Your task to perform on an android device: turn off picture-in-picture Image 0: 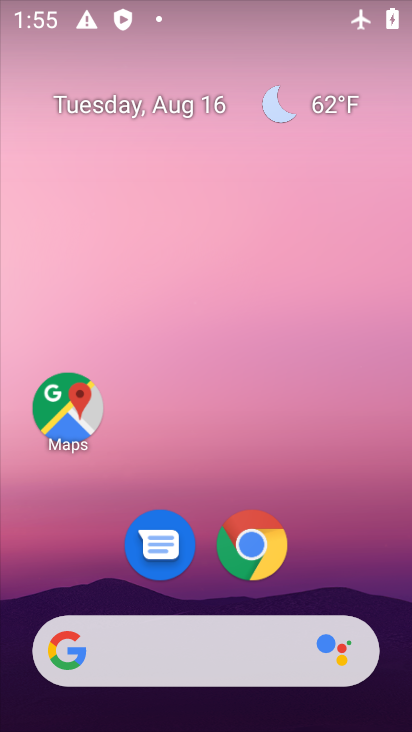
Step 0: click (242, 545)
Your task to perform on an android device: turn off picture-in-picture Image 1: 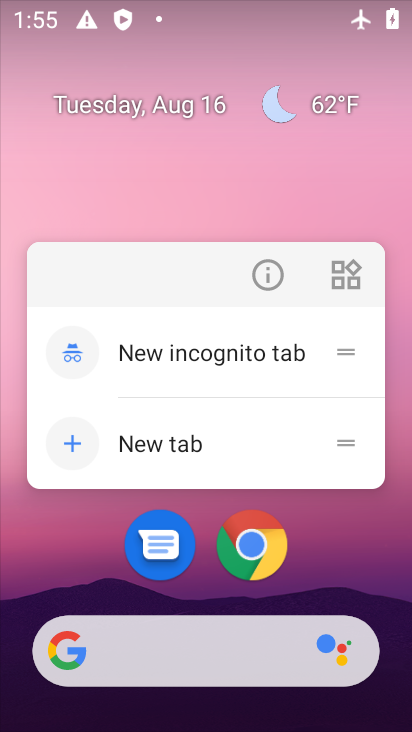
Step 1: click (260, 274)
Your task to perform on an android device: turn off picture-in-picture Image 2: 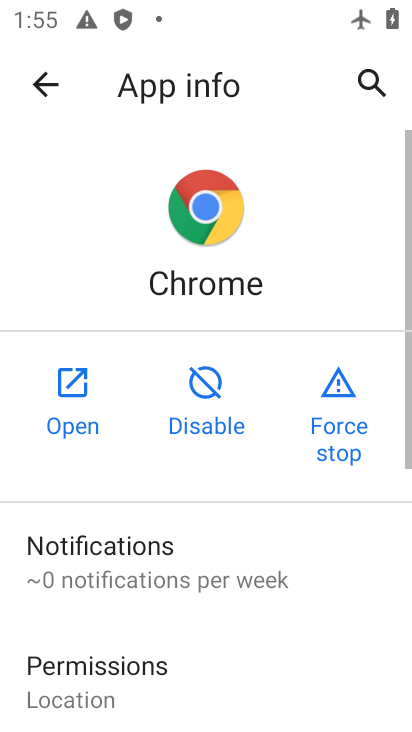
Step 2: drag from (265, 665) to (387, 282)
Your task to perform on an android device: turn off picture-in-picture Image 3: 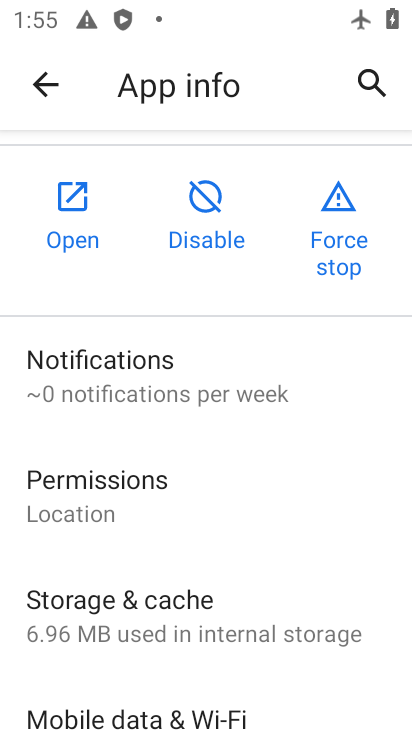
Step 3: drag from (181, 684) to (221, 359)
Your task to perform on an android device: turn off picture-in-picture Image 4: 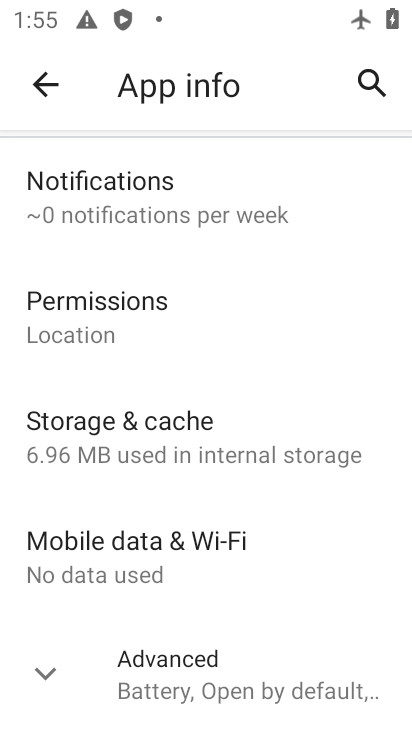
Step 4: click (118, 682)
Your task to perform on an android device: turn off picture-in-picture Image 5: 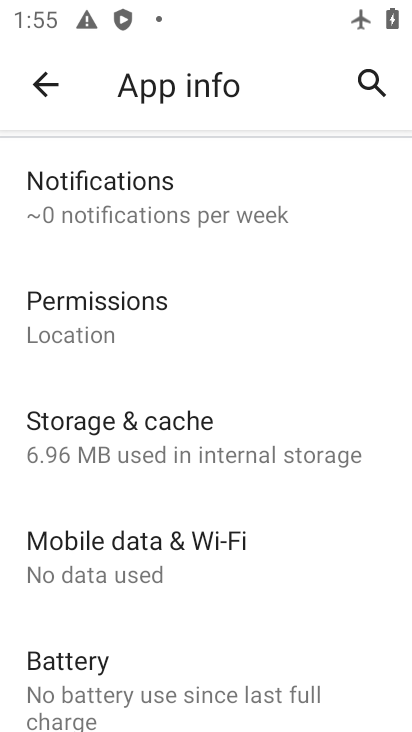
Step 5: click (254, 388)
Your task to perform on an android device: turn off picture-in-picture Image 6: 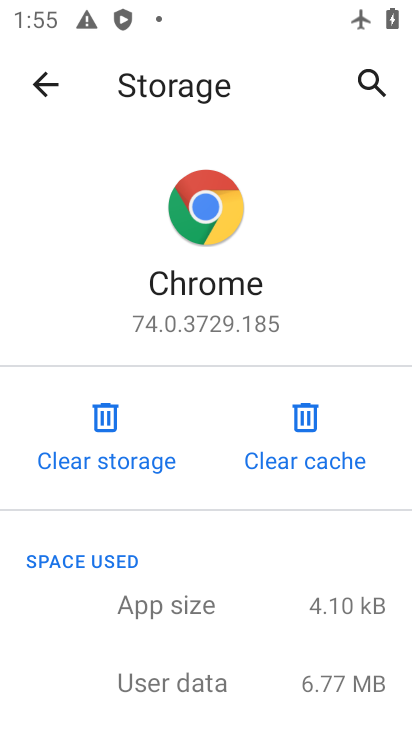
Step 6: click (53, 94)
Your task to perform on an android device: turn off picture-in-picture Image 7: 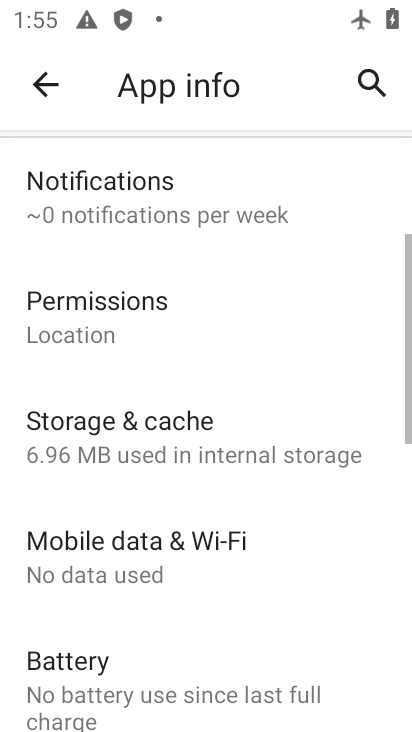
Step 7: drag from (184, 681) to (192, 327)
Your task to perform on an android device: turn off picture-in-picture Image 8: 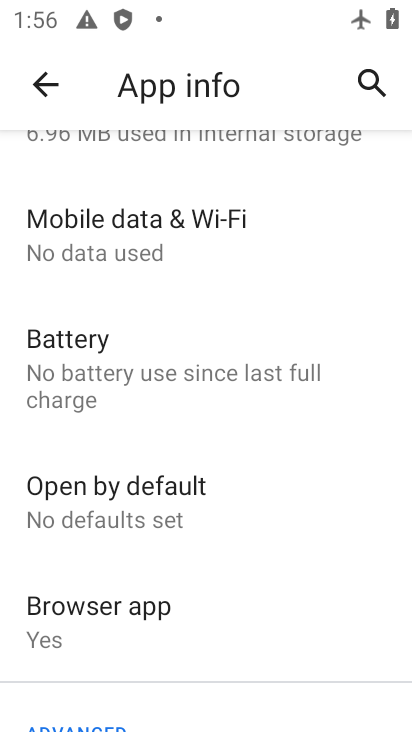
Step 8: drag from (115, 670) to (115, 421)
Your task to perform on an android device: turn off picture-in-picture Image 9: 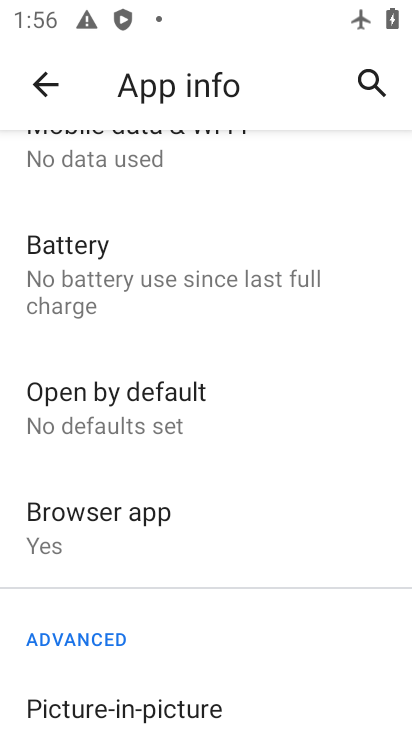
Step 9: click (107, 712)
Your task to perform on an android device: turn off picture-in-picture Image 10: 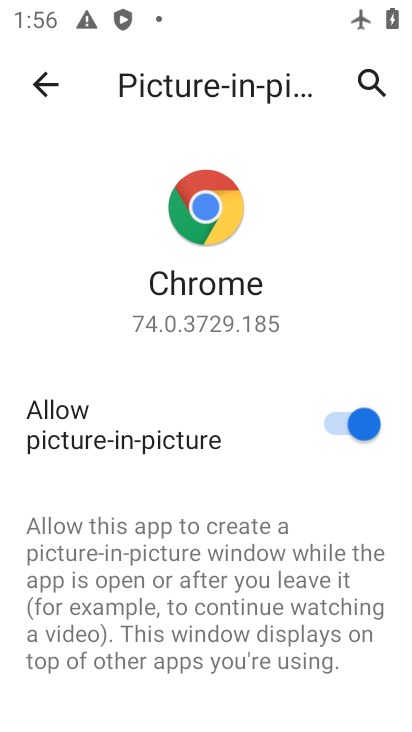
Step 10: click (343, 422)
Your task to perform on an android device: turn off picture-in-picture Image 11: 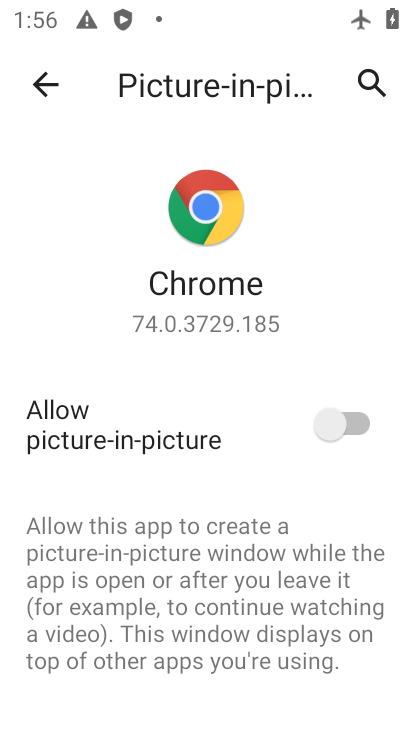
Step 11: task complete